Your task to perform on an android device: read, delete, or share a saved page in the chrome app Image 0: 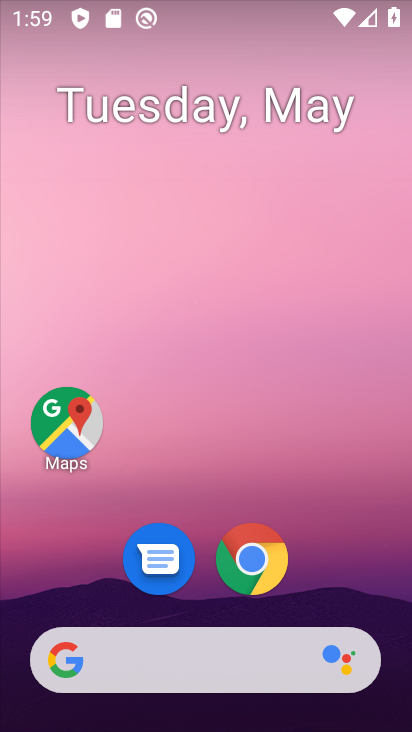
Step 0: click (253, 559)
Your task to perform on an android device: read, delete, or share a saved page in the chrome app Image 1: 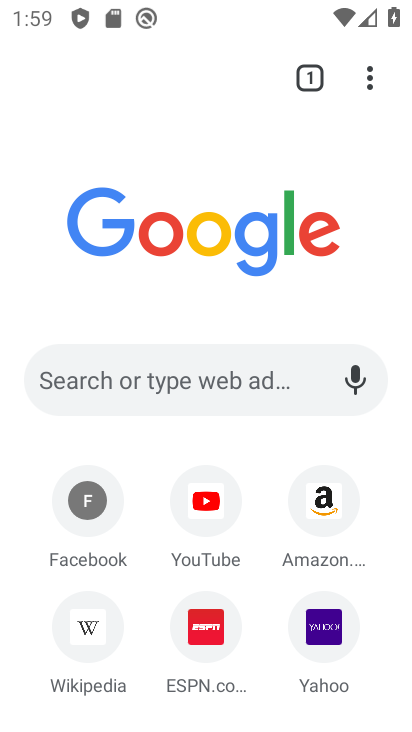
Step 1: click (370, 76)
Your task to perform on an android device: read, delete, or share a saved page in the chrome app Image 2: 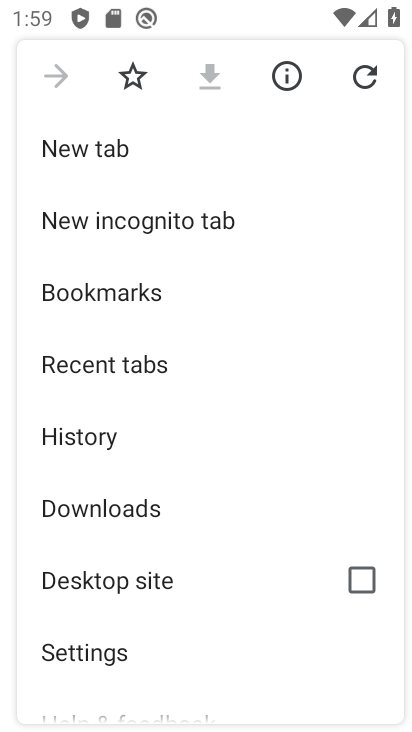
Step 2: click (133, 515)
Your task to perform on an android device: read, delete, or share a saved page in the chrome app Image 3: 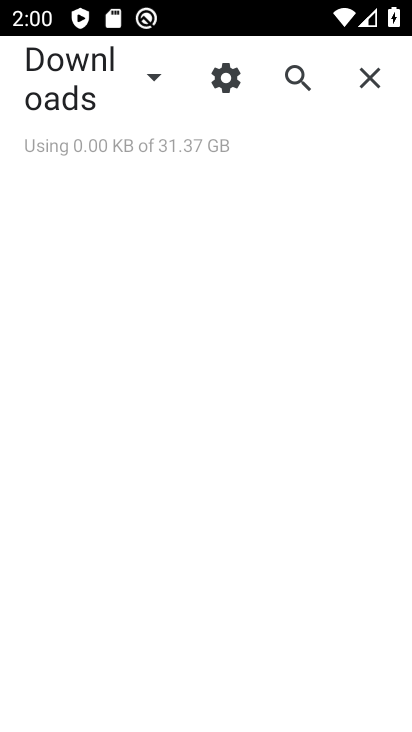
Step 3: click (162, 77)
Your task to perform on an android device: read, delete, or share a saved page in the chrome app Image 4: 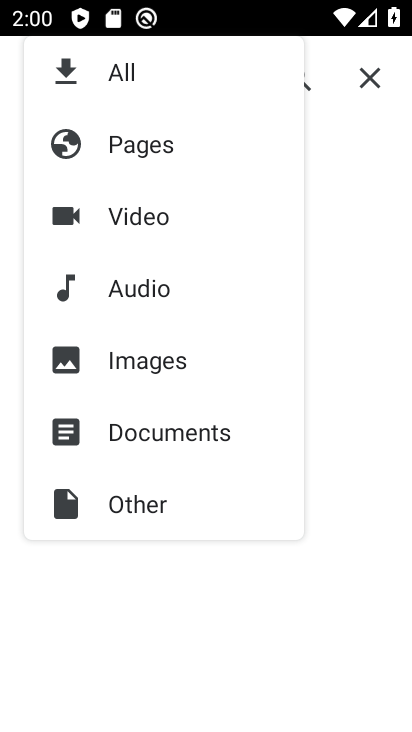
Step 4: click (119, 75)
Your task to perform on an android device: read, delete, or share a saved page in the chrome app Image 5: 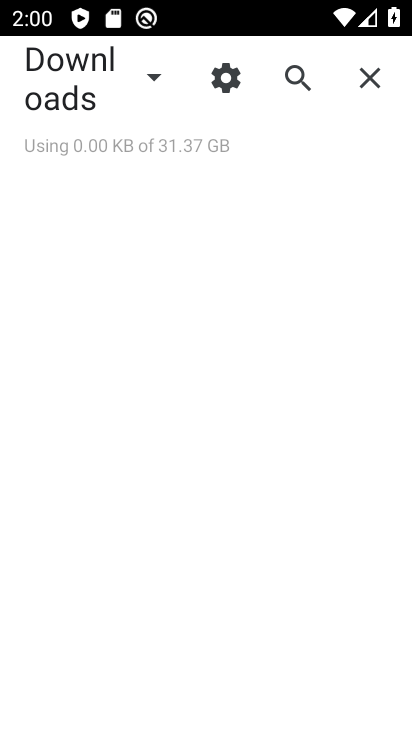
Step 5: task complete